Your task to perform on an android device: open sync settings in chrome Image 0: 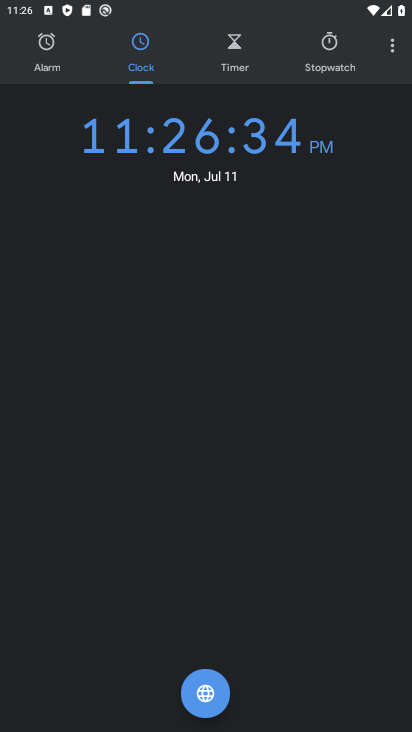
Step 0: press home button
Your task to perform on an android device: open sync settings in chrome Image 1: 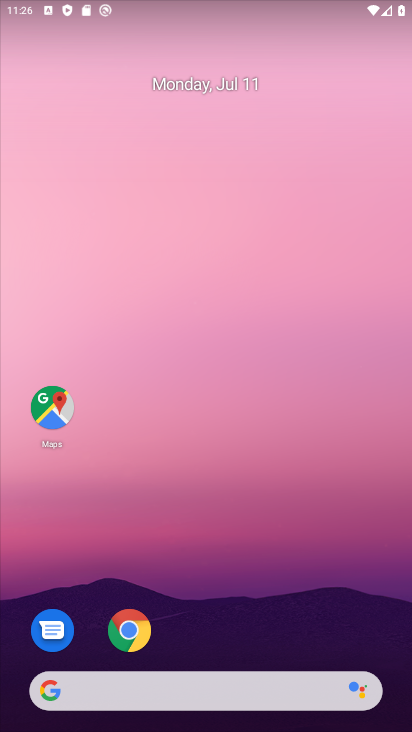
Step 1: click (131, 633)
Your task to perform on an android device: open sync settings in chrome Image 2: 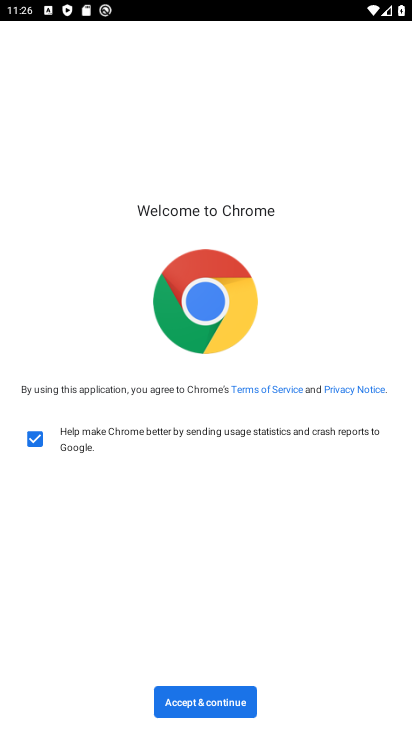
Step 2: click (197, 707)
Your task to perform on an android device: open sync settings in chrome Image 3: 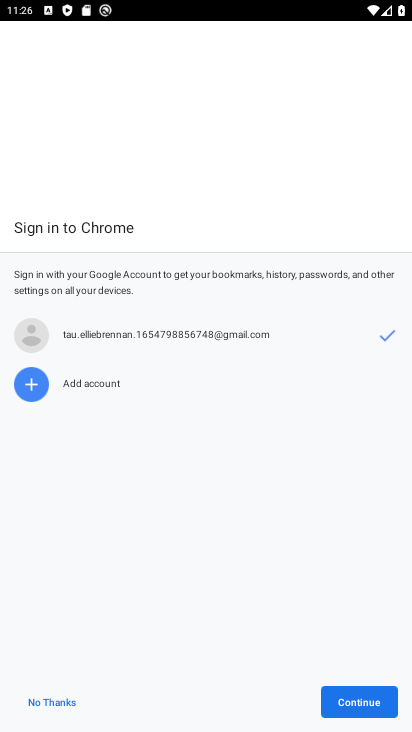
Step 3: click (357, 703)
Your task to perform on an android device: open sync settings in chrome Image 4: 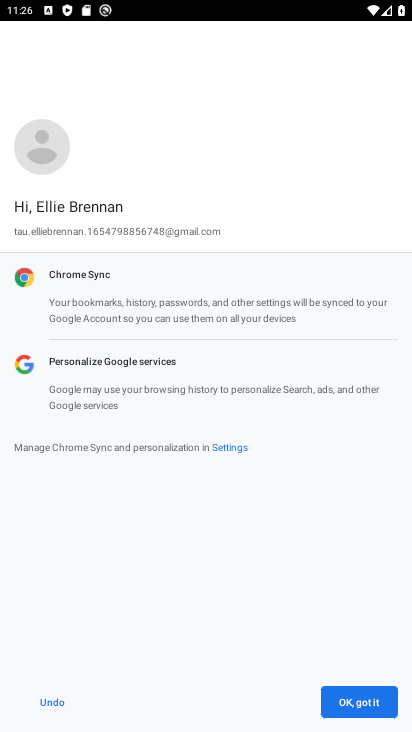
Step 4: click (356, 717)
Your task to perform on an android device: open sync settings in chrome Image 5: 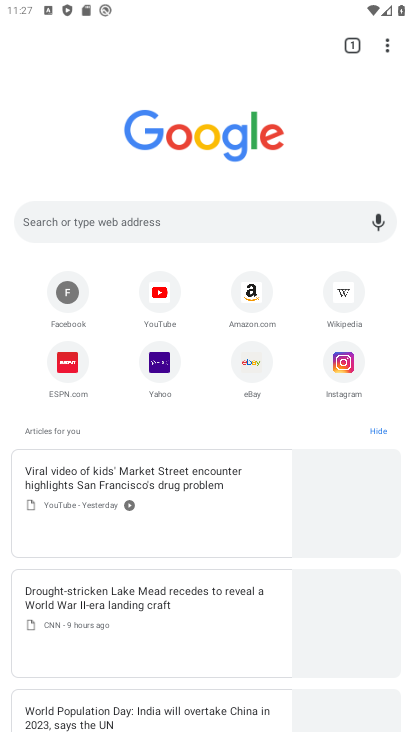
Step 5: click (386, 51)
Your task to perform on an android device: open sync settings in chrome Image 6: 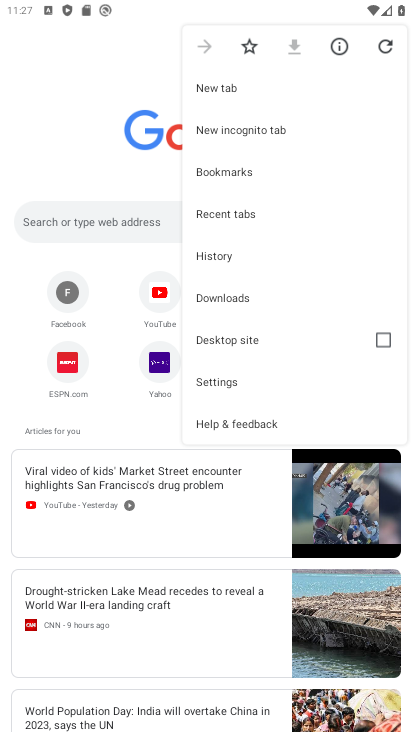
Step 6: click (225, 381)
Your task to perform on an android device: open sync settings in chrome Image 7: 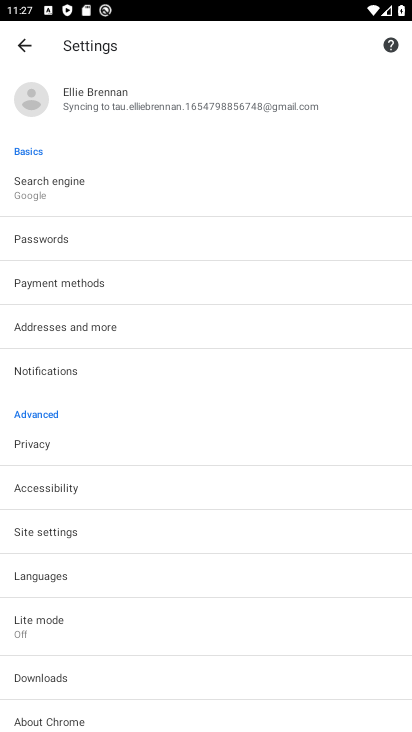
Step 7: click (94, 93)
Your task to perform on an android device: open sync settings in chrome Image 8: 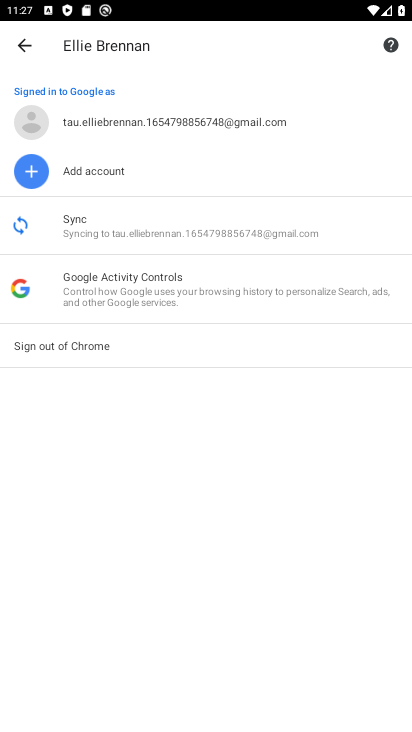
Step 8: click (86, 226)
Your task to perform on an android device: open sync settings in chrome Image 9: 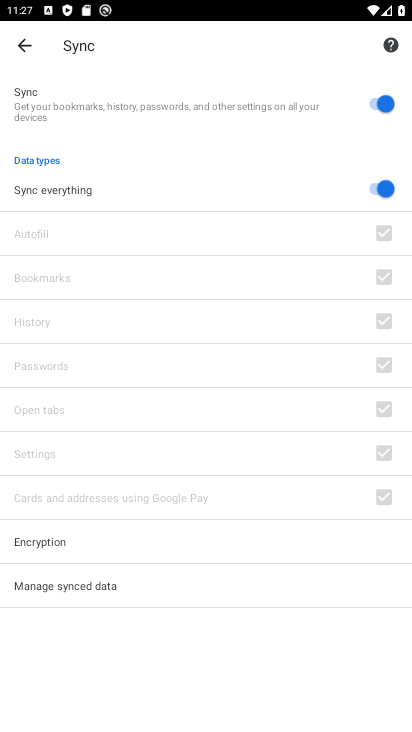
Step 9: task complete